Your task to perform on an android device: Open the Play Movies app and select the watchlist tab. Image 0: 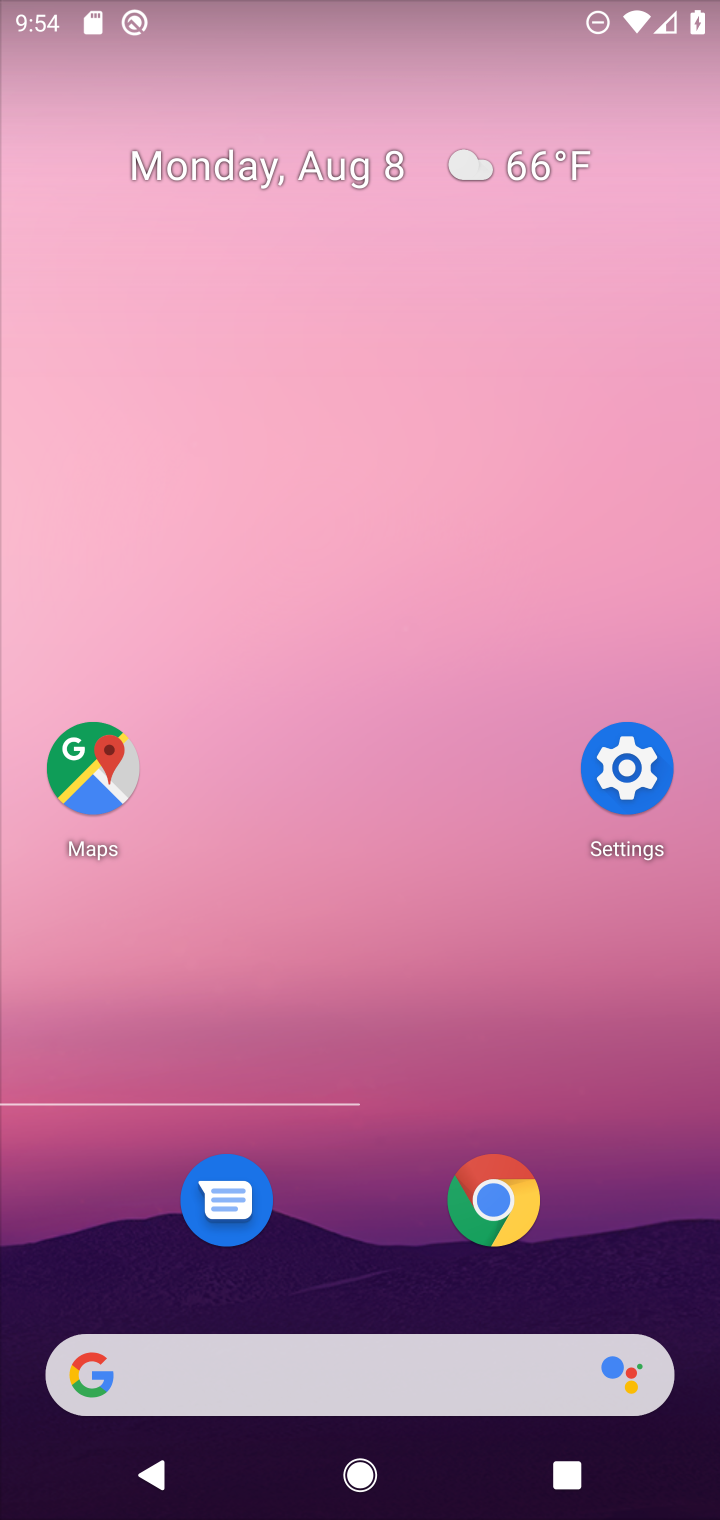
Step 0: press home button
Your task to perform on an android device: Open the Play Movies app and select the watchlist tab. Image 1: 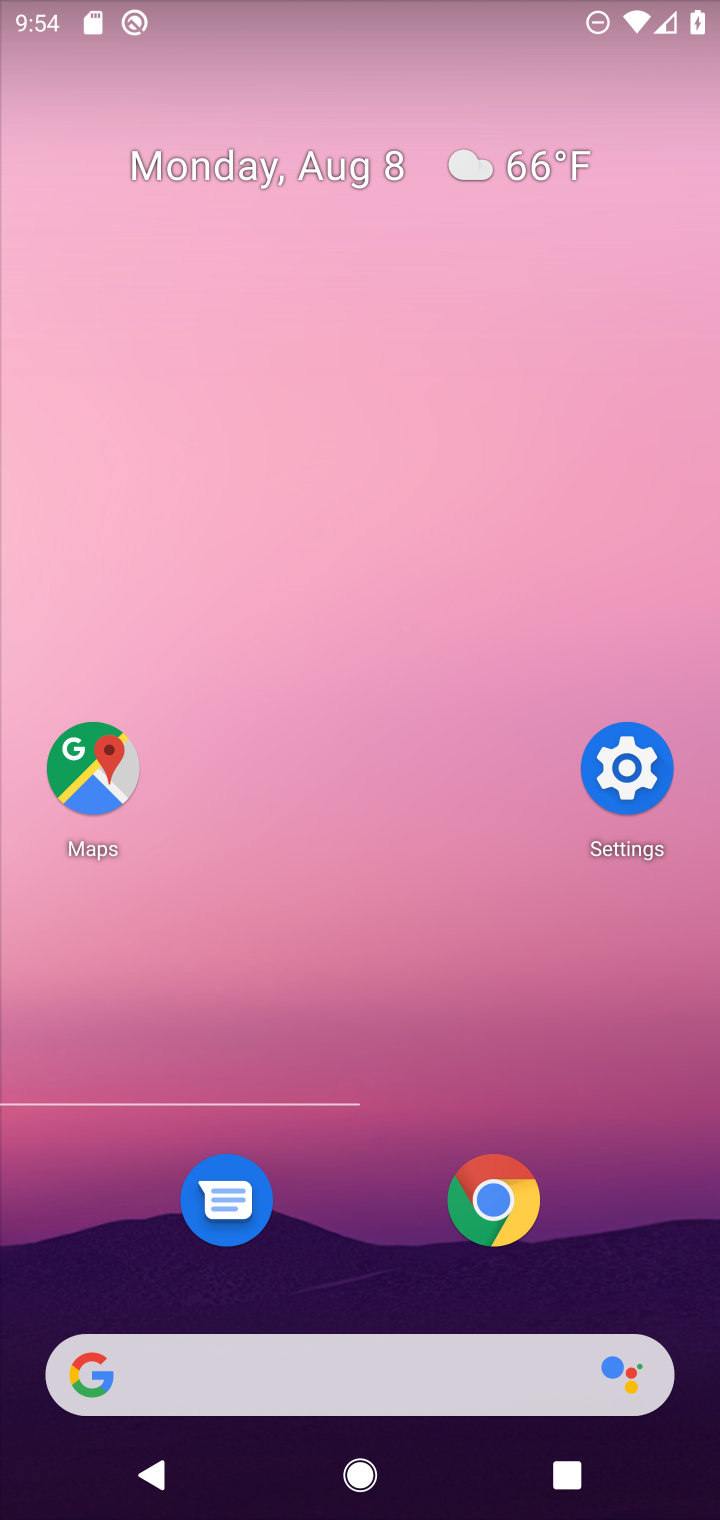
Step 1: drag from (279, 1387) to (555, 129)
Your task to perform on an android device: Open the Play Movies app and select the watchlist tab. Image 2: 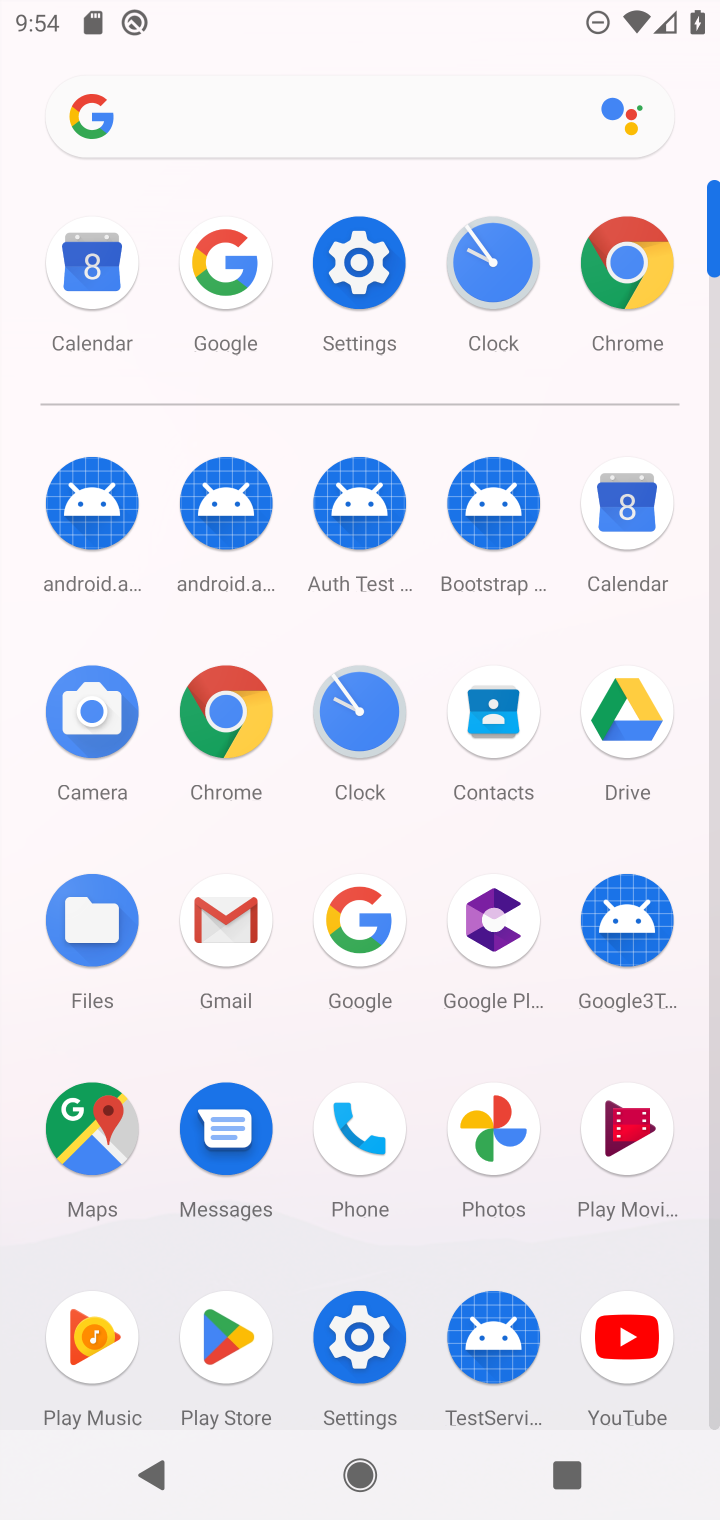
Step 2: click (634, 1123)
Your task to perform on an android device: Open the Play Movies app and select the watchlist tab. Image 3: 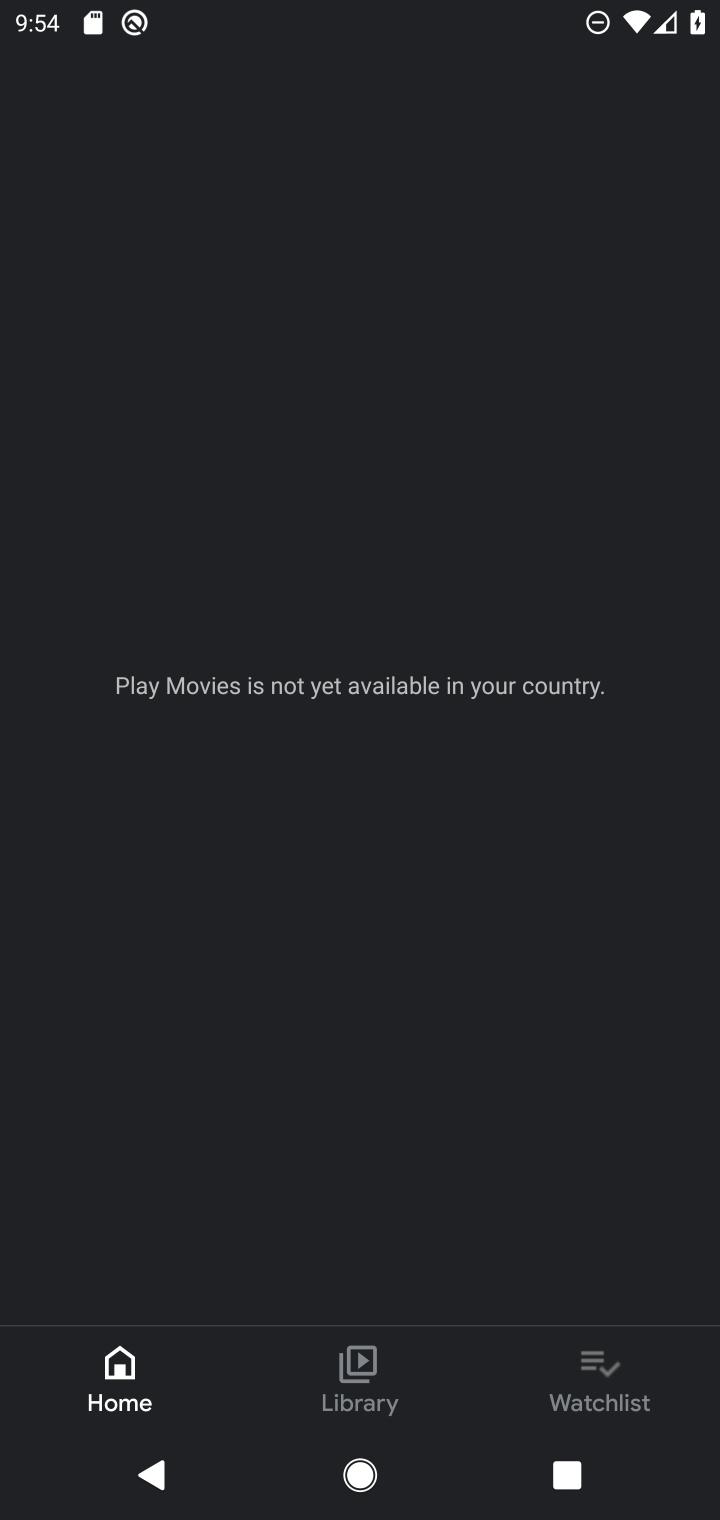
Step 3: click (608, 1368)
Your task to perform on an android device: Open the Play Movies app and select the watchlist tab. Image 4: 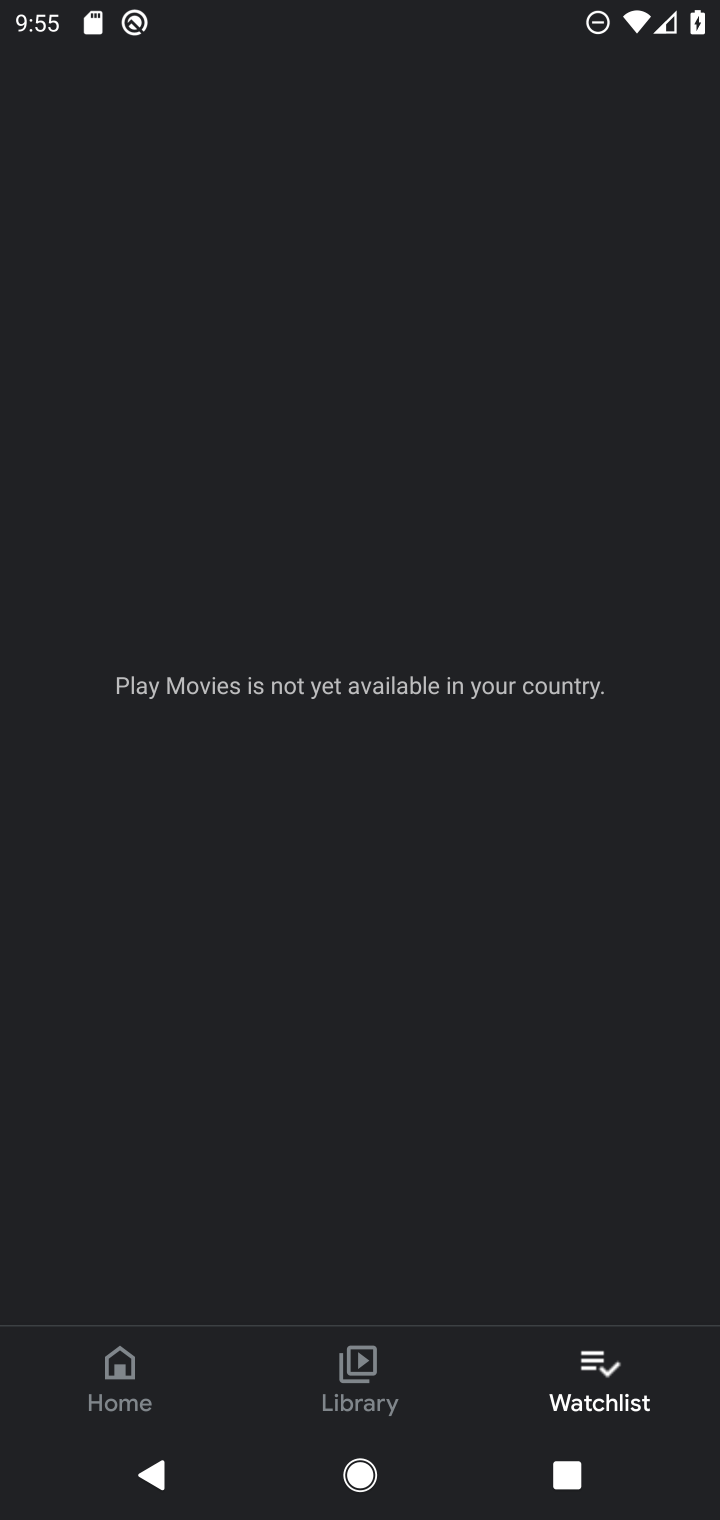
Step 4: task complete